Your task to perform on an android device: Show me the alarms in the clock app Image 0: 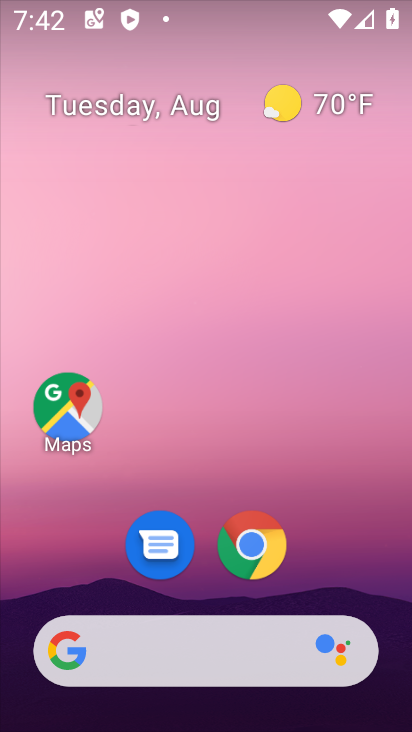
Step 0: drag from (232, 720) to (232, 113)
Your task to perform on an android device: Show me the alarms in the clock app Image 1: 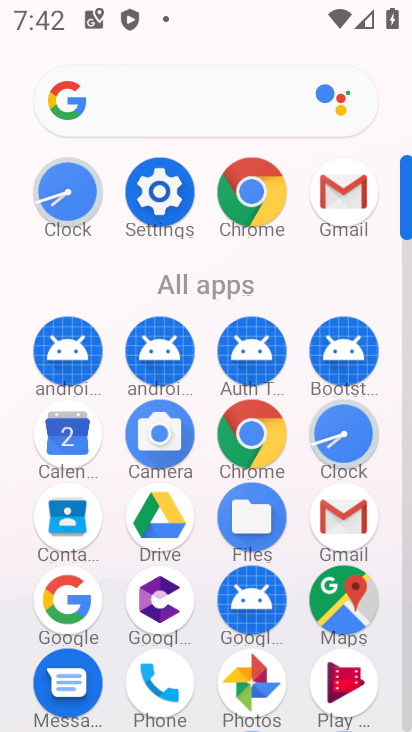
Step 1: click (342, 446)
Your task to perform on an android device: Show me the alarms in the clock app Image 2: 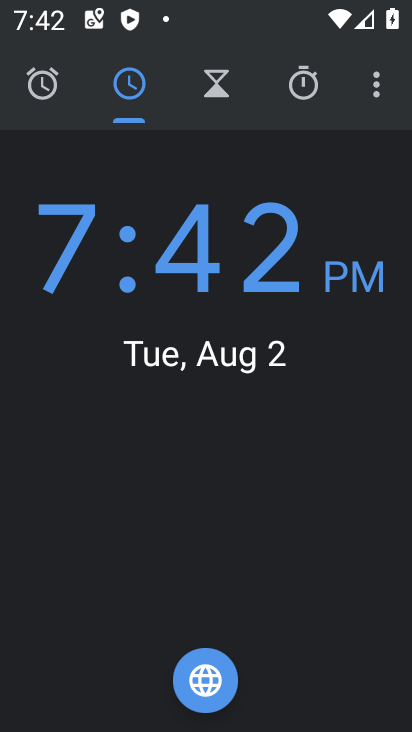
Step 2: click (57, 94)
Your task to perform on an android device: Show me the alarms in the clock app Image 3: 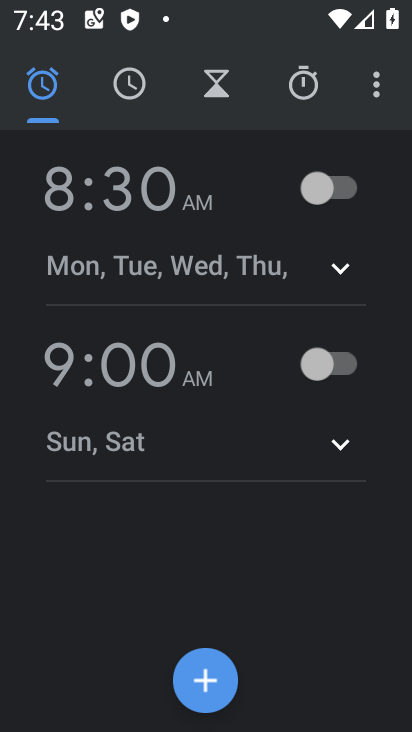
Step 3: task complete